Your task to perform on an android device: allow notifications from all sites in the chrome app Image 0: 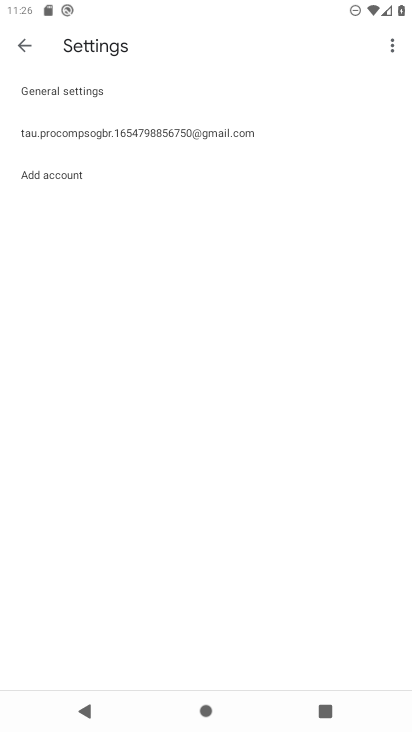
Step 0: press home button
Your task to perform on an android device: allow notifications from all sites in the chrome app Image 1: 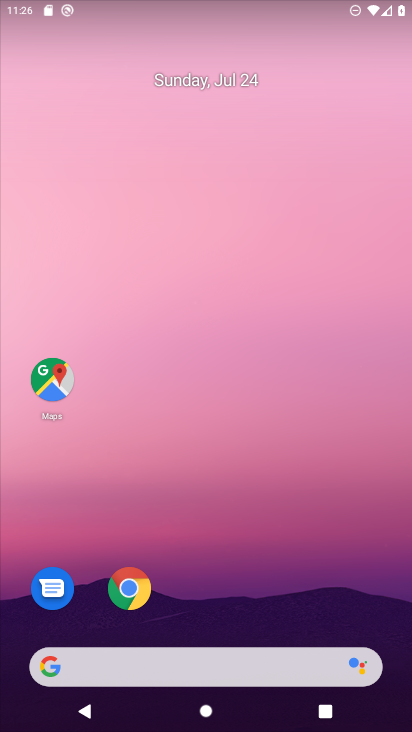
Step 1: drag from (373, 617) to (302, 22)
Your task to perform on an android device: allow notifications from all sites in the chrome app Image 2: 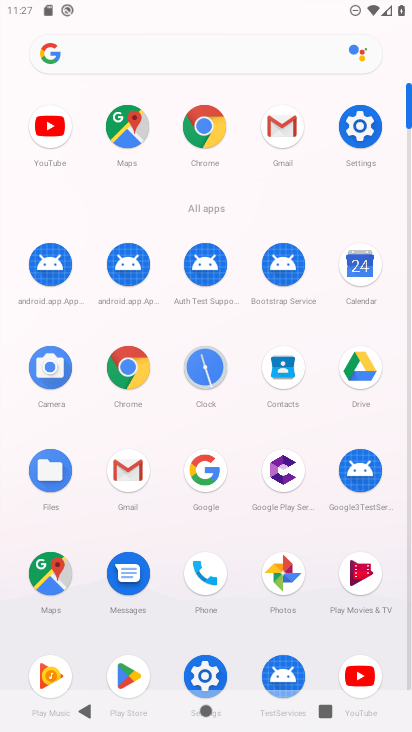
Step 2: click (220, 131)
Your task to perform on an android device: allow notifications from all sites in the chrome app Image 3: 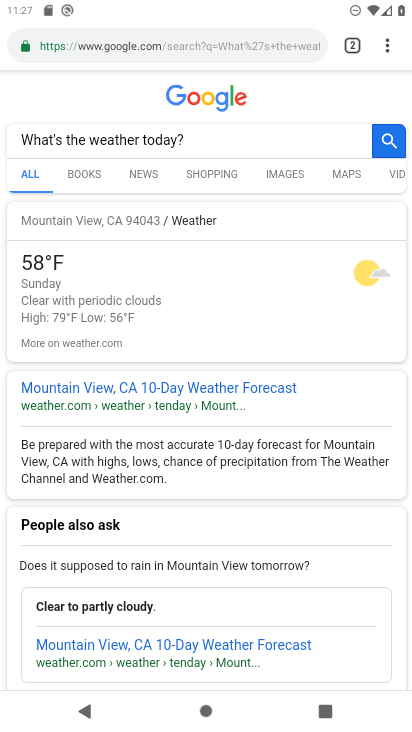
Step 3: click (389, 37)
Your task to perform on an android device: allow notifications from all sites in the chrome app Image 4: 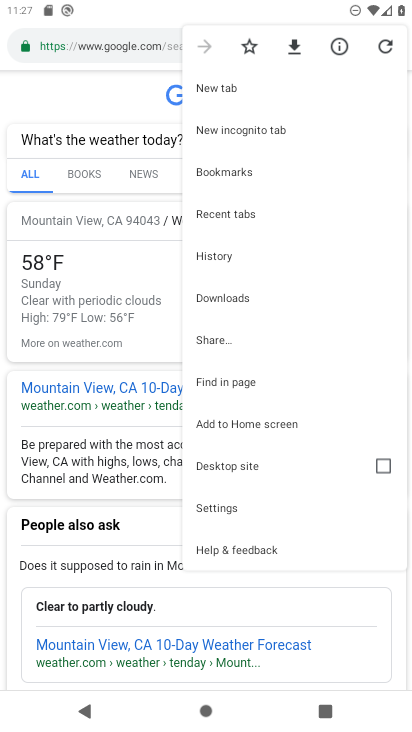
Step 4: click (241, 513)
Your task to perform on an android device: allow notifications from all sites in the chrome app Image 5: 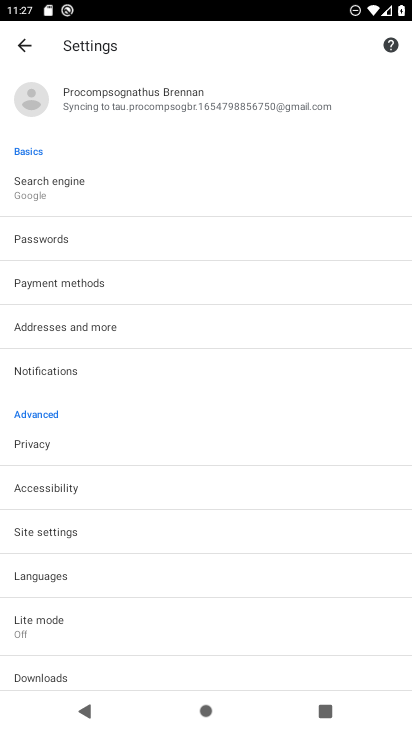
Step 5: click (104, 528)
Your task to perform on an android device: allow notifications from all sites in the chrome app Image 6: 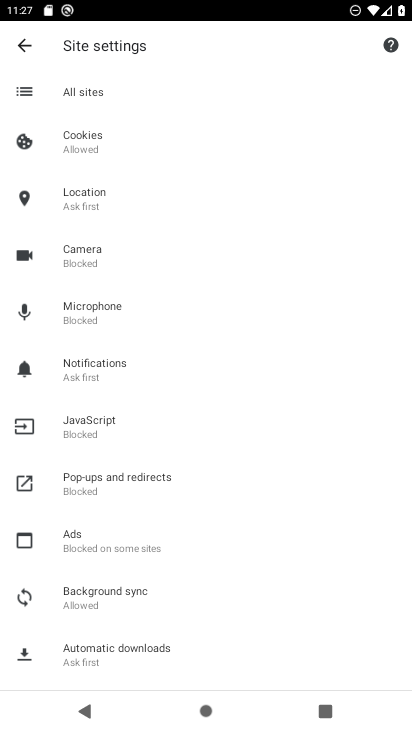
Step 6: click (195, 364)
Your task to perform on an android device: allow notifications from all sites in the chrome app Image 7: 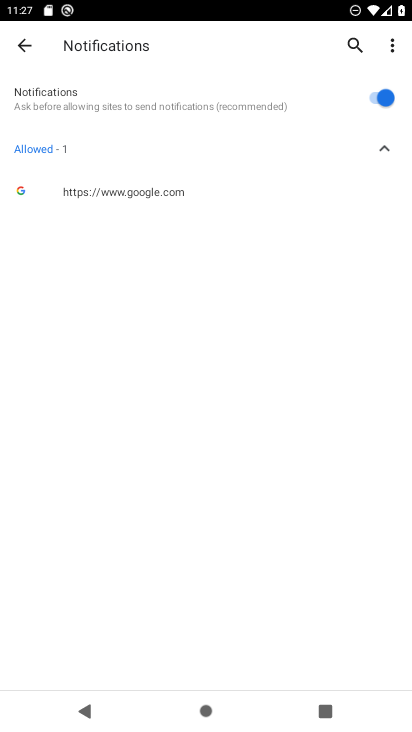
Step 7: task complete